Your task to perform on an android device: check the backup settings in the google photos Image 0: 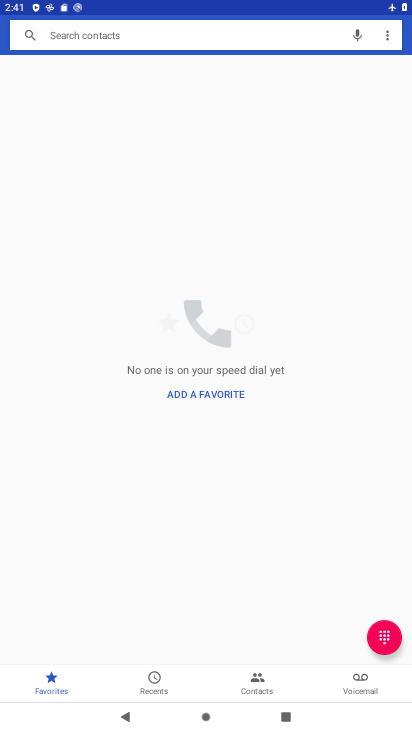
Step 0: press home button
Your task to perform on an android device: check the backup settings in the google photos Image 1: 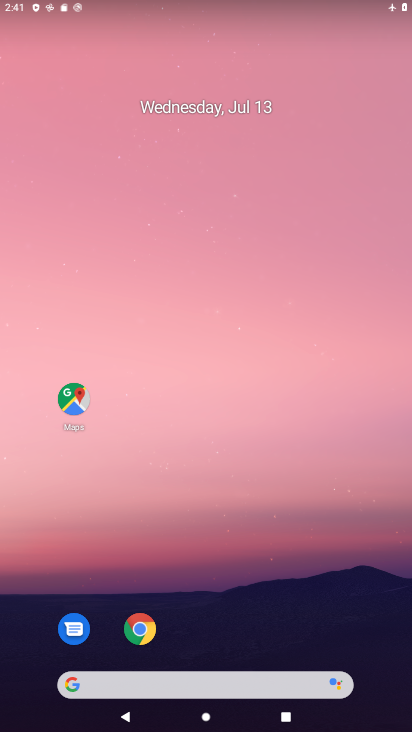
Step 1: drag from (290, 625) to (284, 70)
Your task to perform on an android device: check the backup settings in the google photos Image 2: 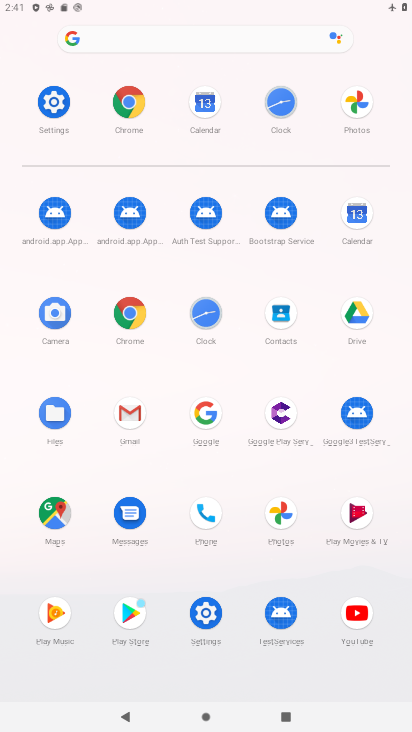
Step 2: click (340, 111)
Your task to perform on an android device: check the backup settings in the google photos Image 3: 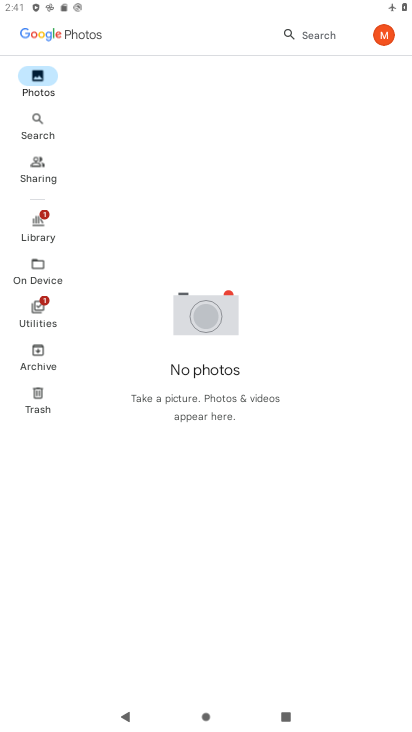
Step 3: press home button
Your task to perform on an android device: check the backup settings in the google photos Image 4: 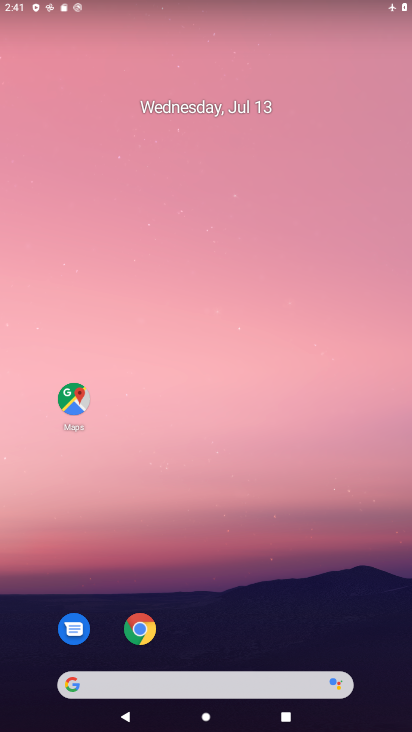
Step 4: drag from (253, 636) to (210, 170)
Your task to perform on an android device: check the backup settings in the google photos Image 5: 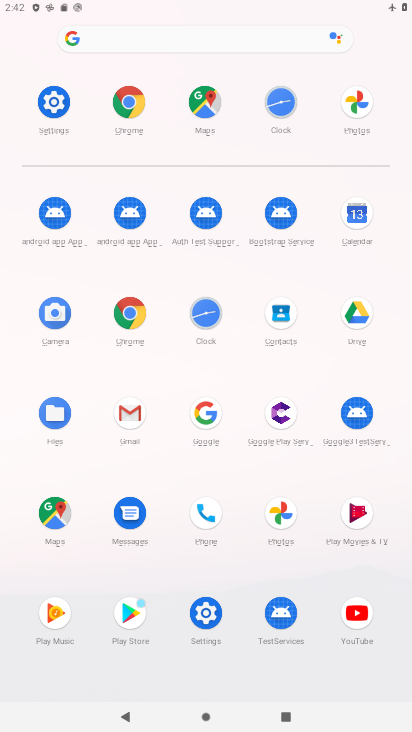
Step 5: click (276, 524)
Your task to perform on an android device: check the backup settings in the google photos Image 6: 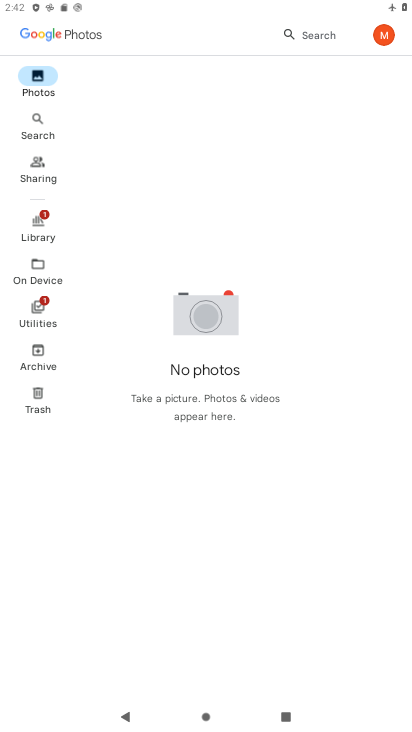
Step 6: click (381, 33)
Your task to perform on an android device: check the backup settings in the google photos Image 7: 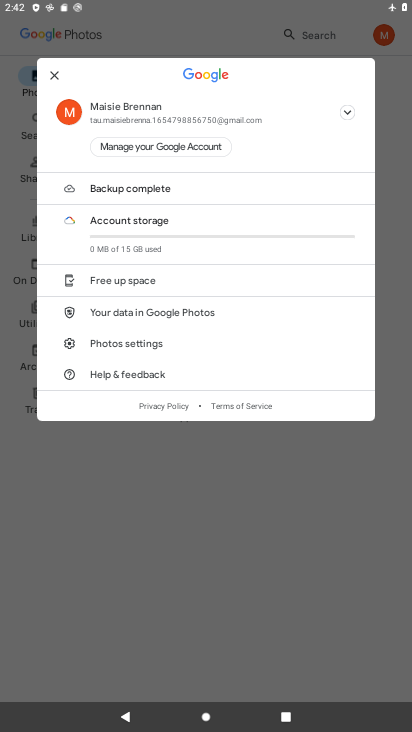
Step 7: click (113, 349)
Your task to perform on an android device: check the backup settings in the google photos Image 8: 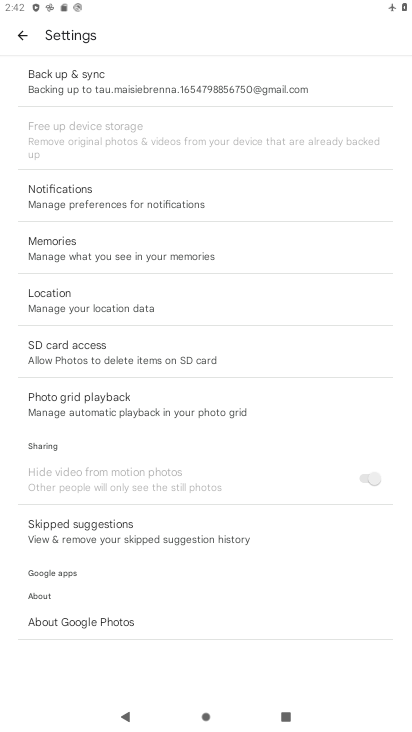
Step 8: click (129, 86)
Your task to perform on an android device: check the backup settings in the google photos Image 9: 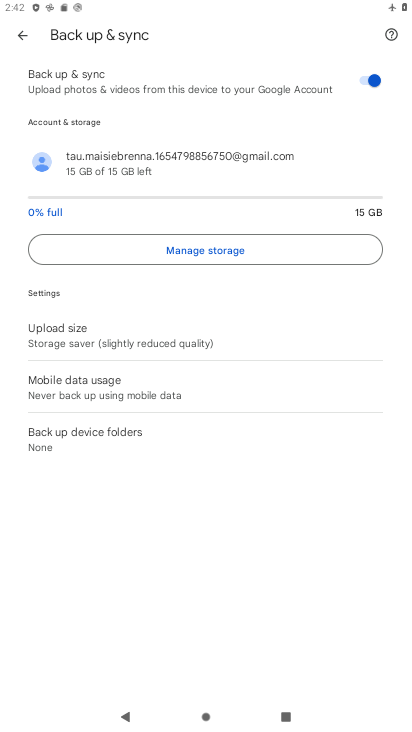
Step 9: task complete